Your task to perform on an android device: turn off improve location accuracy Image 0: 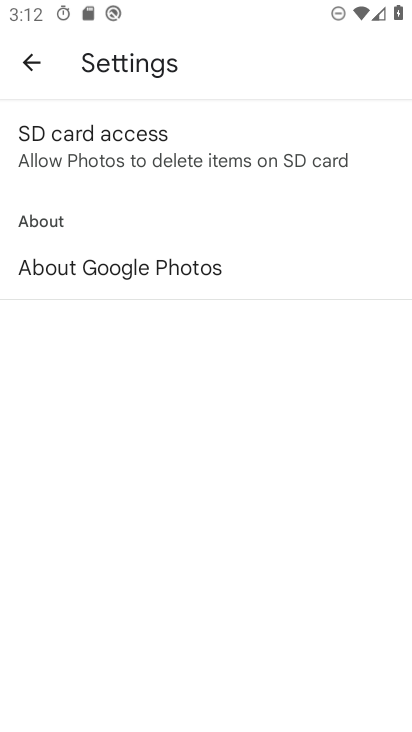
Step 0: press home button
Your task to perform on an android device: turn off improve location accuracy Image 1: 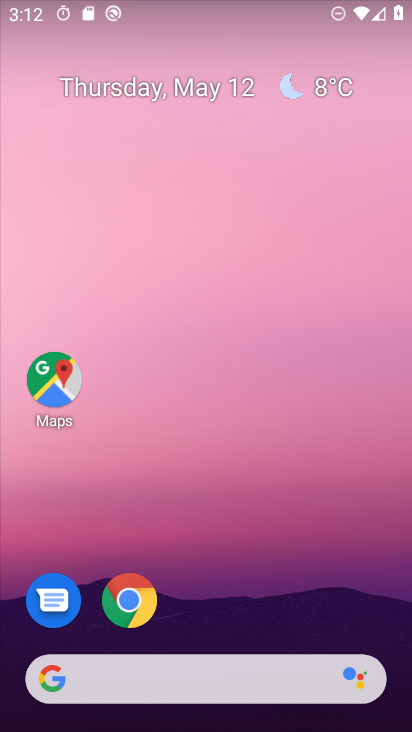
Step 1: drag from (219, 718) to (218, 276)
Your task to perform on an android device: turn off improve location accuracy Image 2: 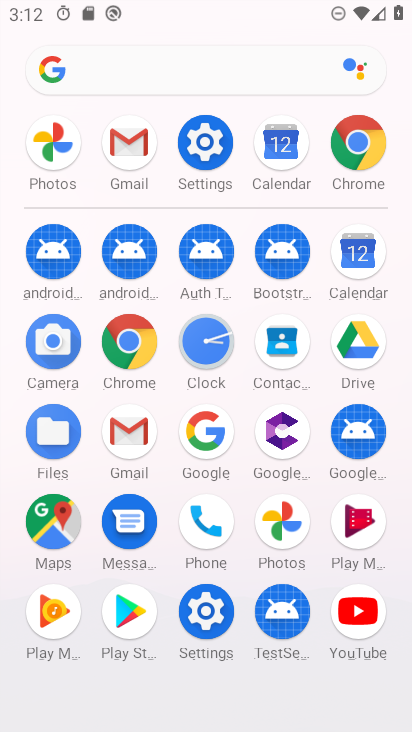
Step 2: click (199, 151)
Your task to perform on an android device: turn off improve location accuracy Image 3: 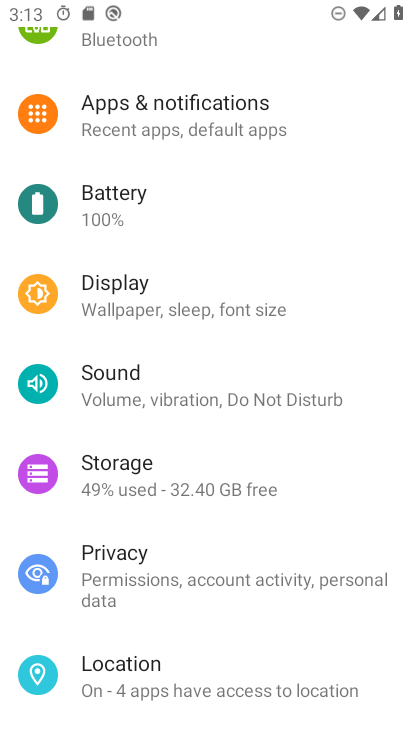
Step 3: drag from (146, 605) to (134, 243)
Your task to perform on an android device: turn off improve location accuracy Image 4: 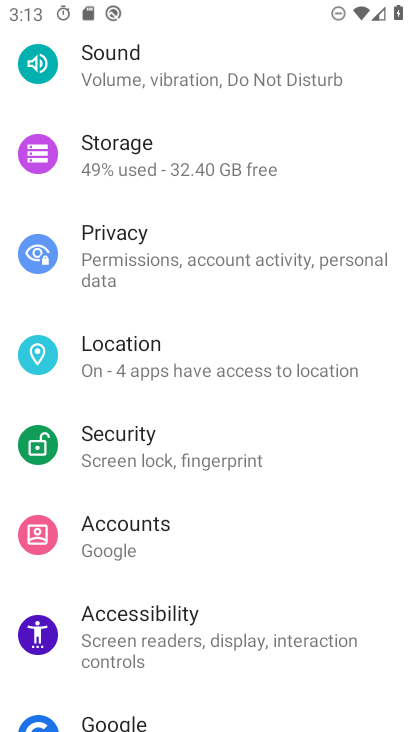
Step 4: click (159, 351)
Your task to perform on an android device: turn off improve location accuracy Image 5: 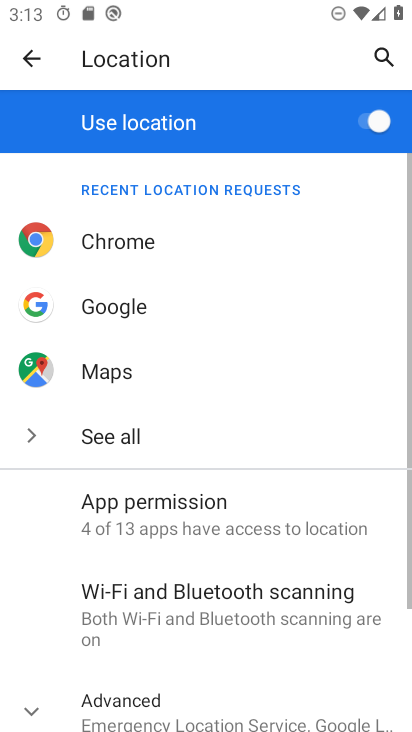
Step 5: drag from (171, 641) to (189, 287)
Your task to perform on an android device: turn off improve location accuracy Image 6: 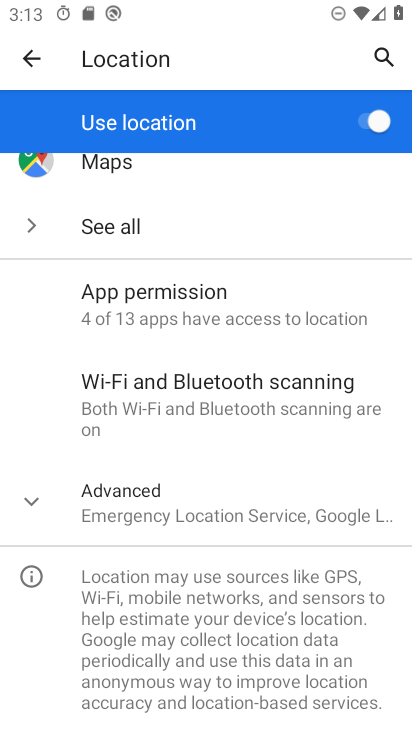
Step 6: click (143, 502)
Your task to perform on an android device: turn off improve location accuracy Image 7: 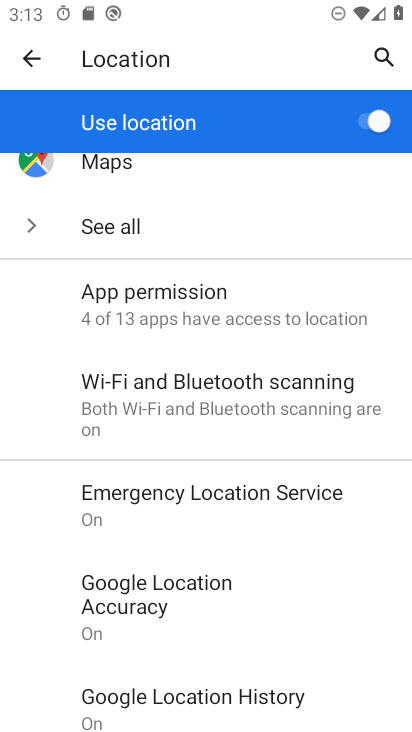
Step 7: click (153, 593)
Your task to perform on an android device: turn off improve location accuracy Image 8: 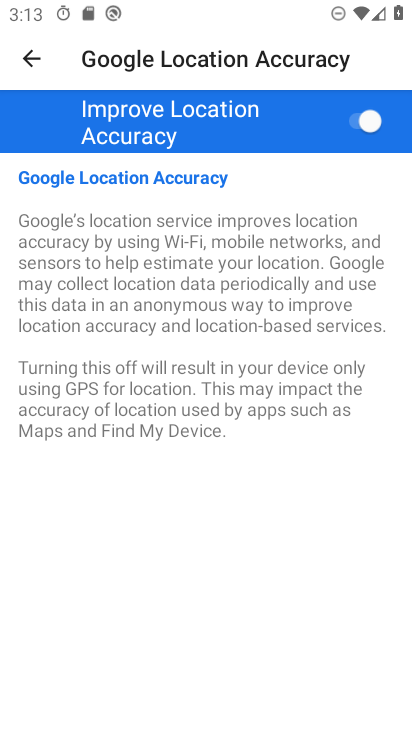
Step 8: click (355, 121)
Your task to perform on an android device: turn off improve location accuracy Image 9: 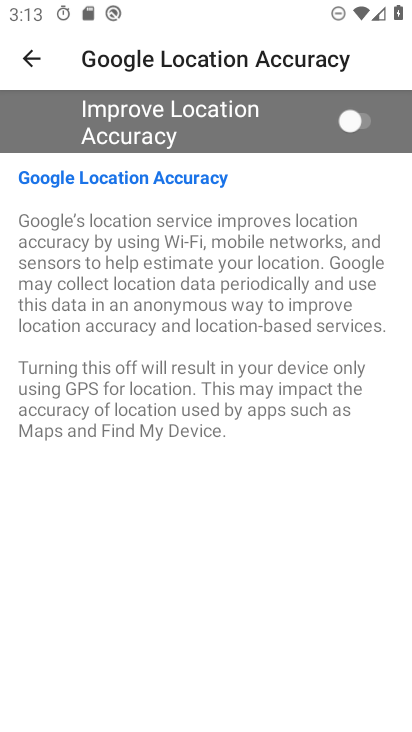
Step 9: task complete